Your task to perform on an android device: Open Youtube and go to "Your channel" Image 0: 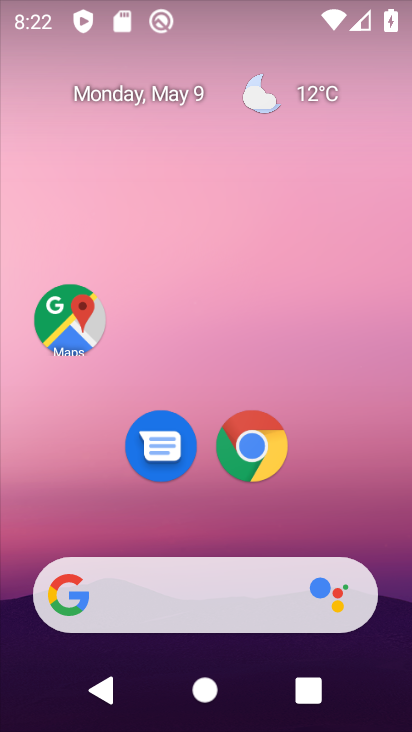
Step 0: drag from (390, 613) to (329, 127)
Your task to perform on an android device: Open Youtube and go to "Your channel" Image 1: 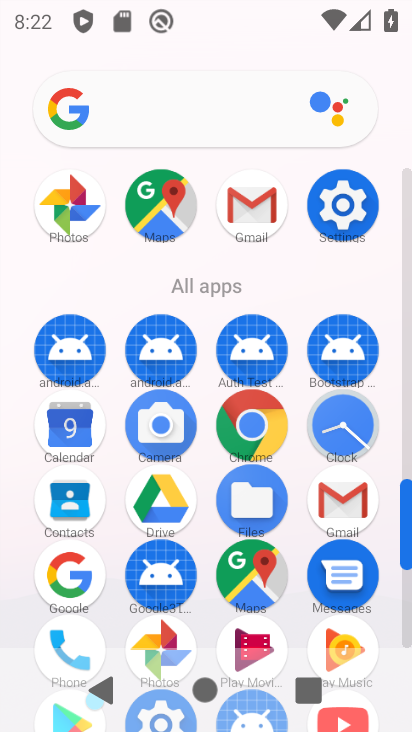
Step 1: click (404, 631)
Your task to perform on an android device: Open Youtube and go to "Your channel" Image 2: 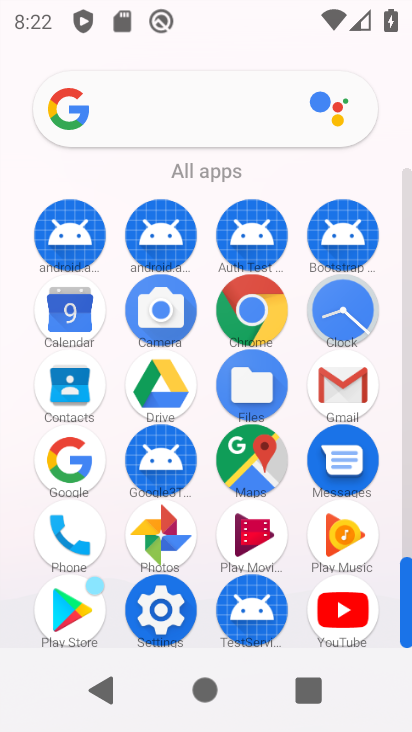
Step 2: click (342, 611)
Your task to perform on an android device: Open Youtube and go to "Your channel" Image 3: 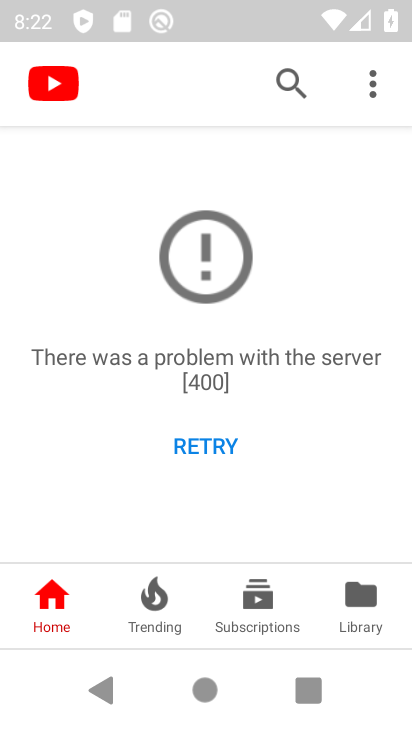
Step 3: click (369, 79)
Your task to perform on an android device: Open Youtube and go to "Your channel" Image 4: 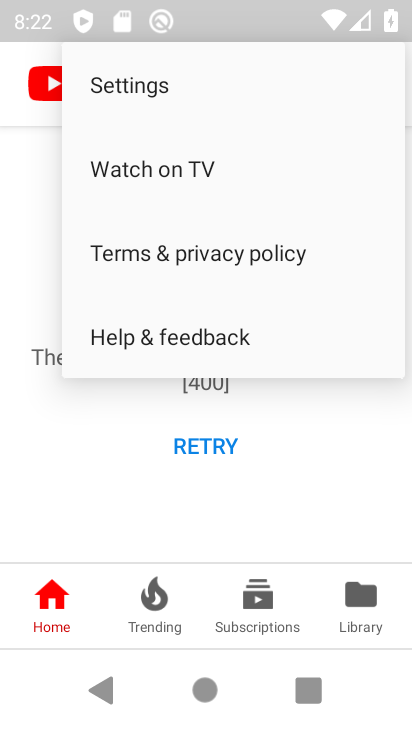
Step 4: click (150, 79)
Your task to perform on an android device: Open Youtube and go to "Your channel" Image 5: 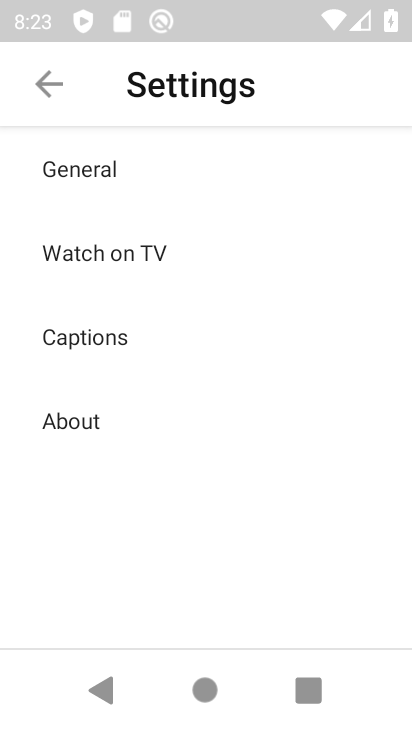
Step 5: click (67, 155)
Your task to perform on an android device: Open Youtube and go to "Your channel" Image 6: 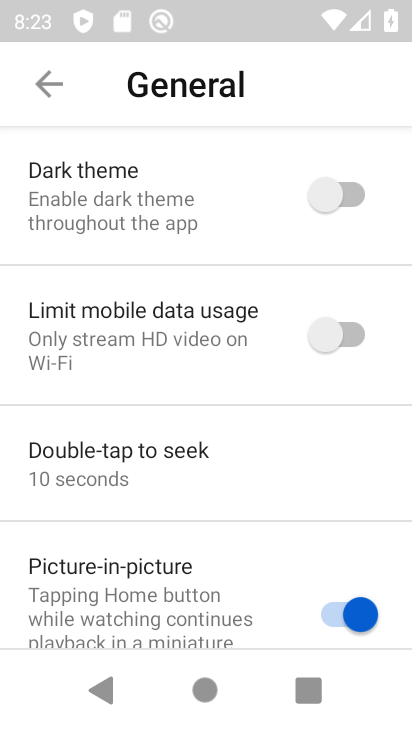
Step 6: task complete